Your task to perform on an android device: Do I have any events tomorrow? Image 0: 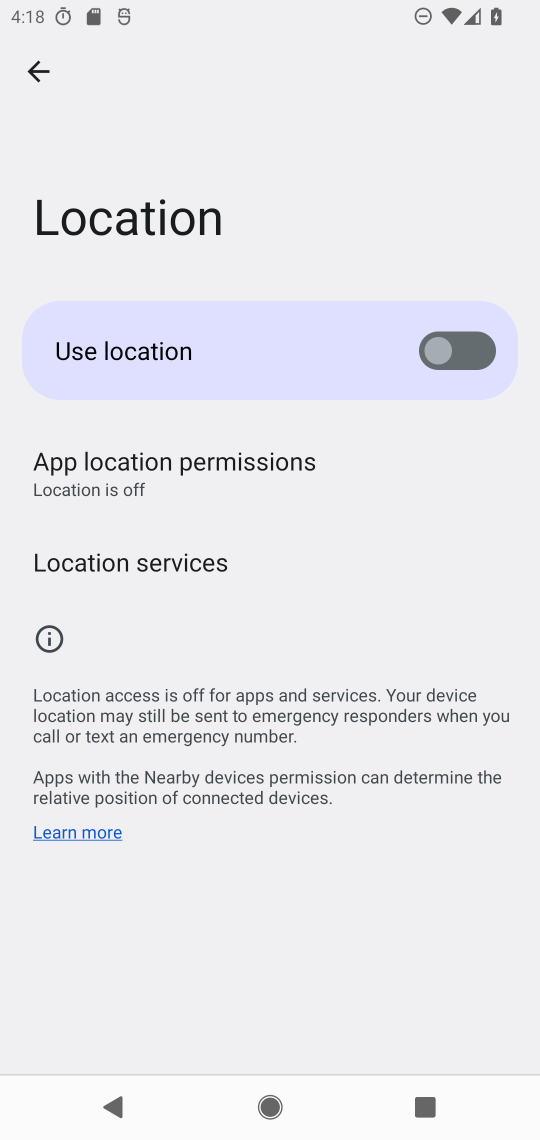
Step 0: press home button
Your task to perform on an android device: Do I have any events tomorrow? Image 1: 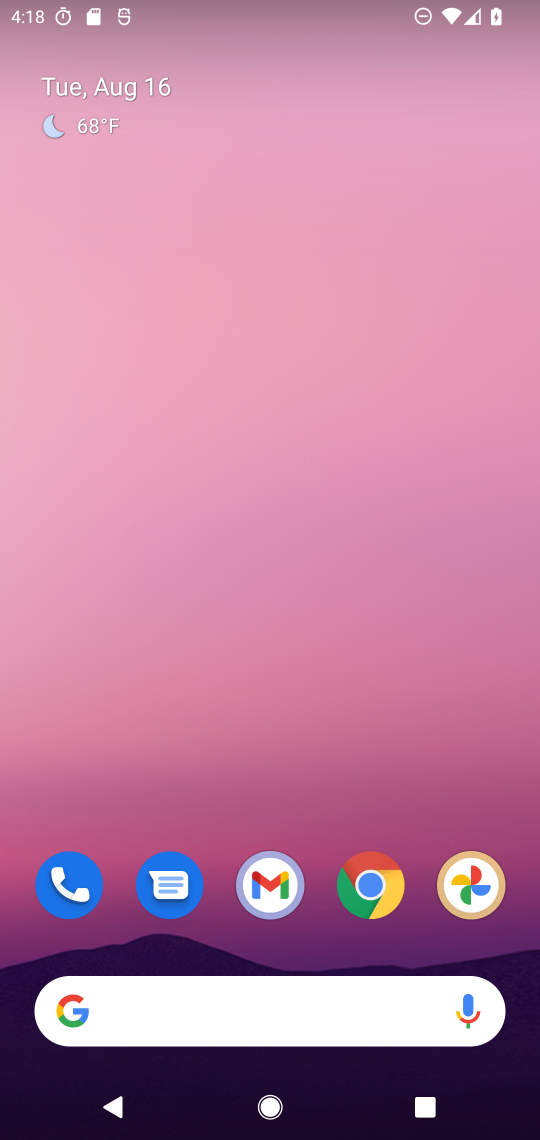
Step 1: drag from (247, 780) to (278, 445)
Your task to perform on an android device: Do I have any events tomorrow? Image 2: 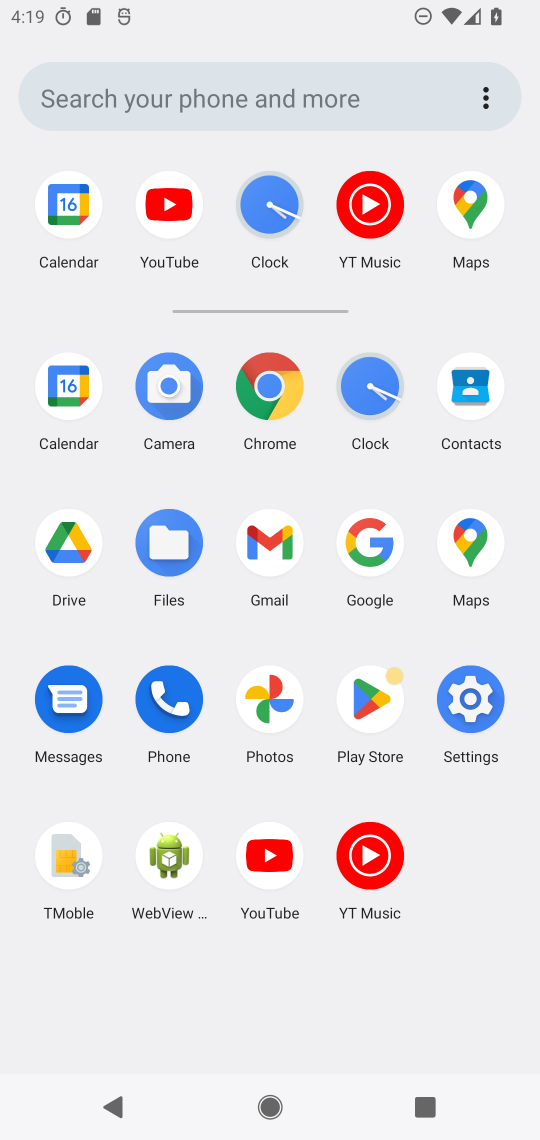
Step 2: click (56, 373)
Your task to perform on an android device: Do I have any events tomorrow? Image 3: 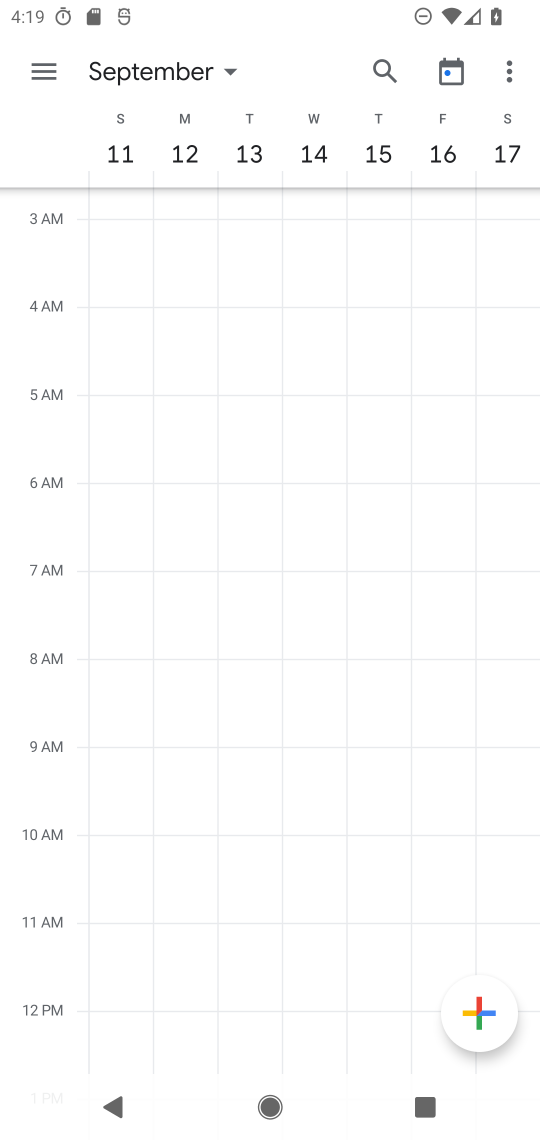
Step 3: drag from (126, 140) to (535, 154)
Your task to perform on an android device: Do I have any events tomorrow? Image 4: 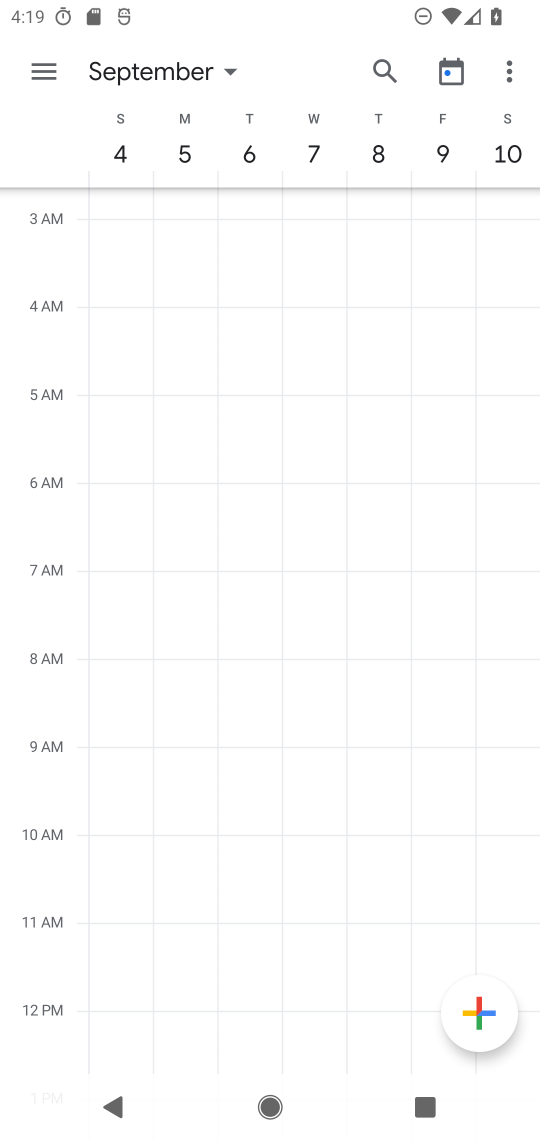
Step 4: drag from (217, 144) to (525, 148)
Your task to perform on an android device: Do I have any events tomorrow? Image 5: 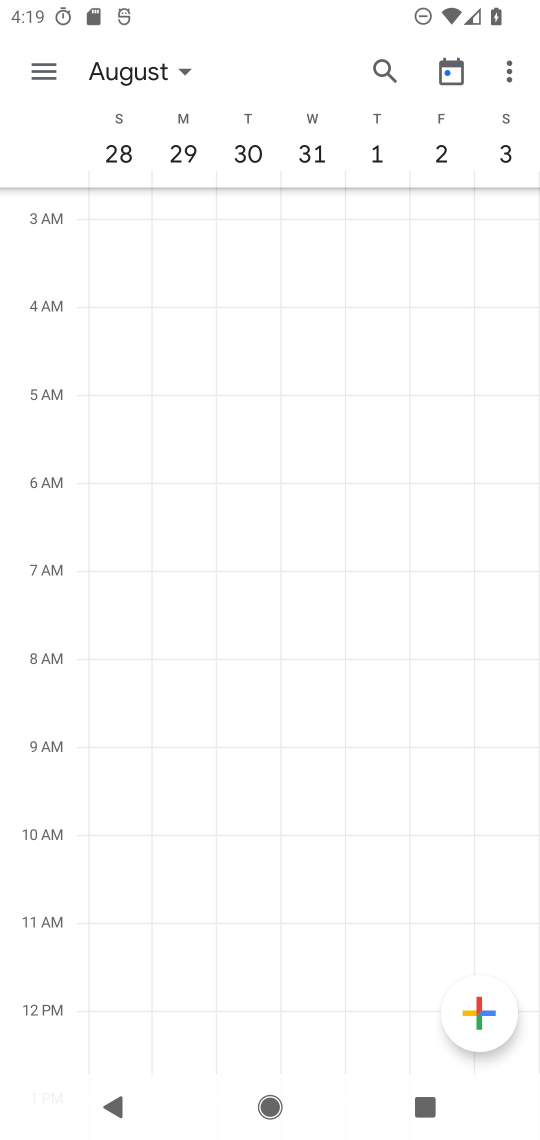
Step 5: drag from (125, 138) to (487, 153)
Your task to perform on an android device: Do I have any events tomorrow? Image 6: 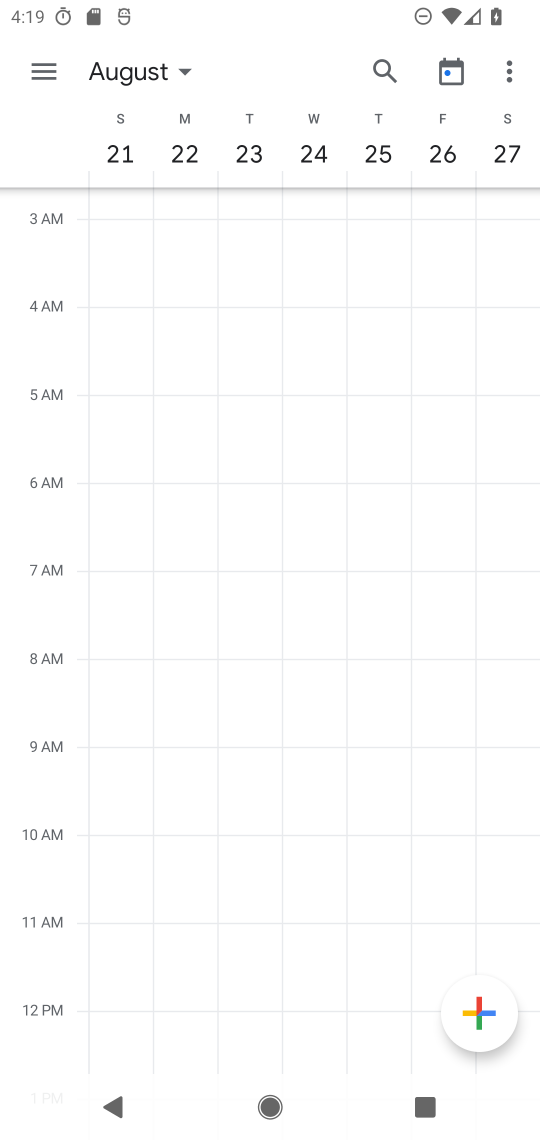
Step 6: drag from (113, 147) to (511, 106)
Your task to perform on an android device: Do I have any events tomorrow? Image 7: 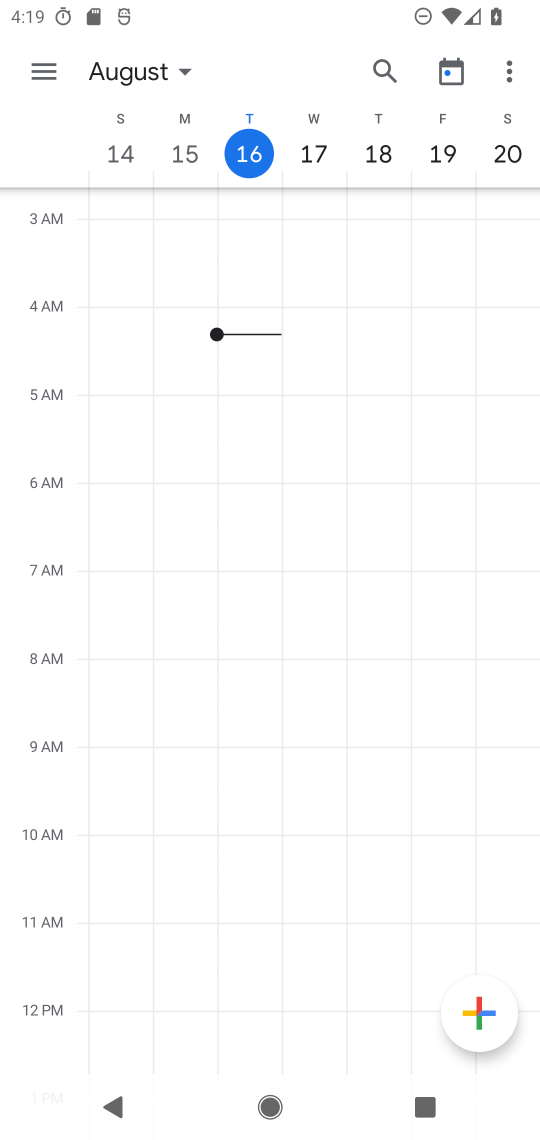
Step 7: click (324, 138)
Your task to perform on an android device: Do I have any events tomorrow? Image 8: 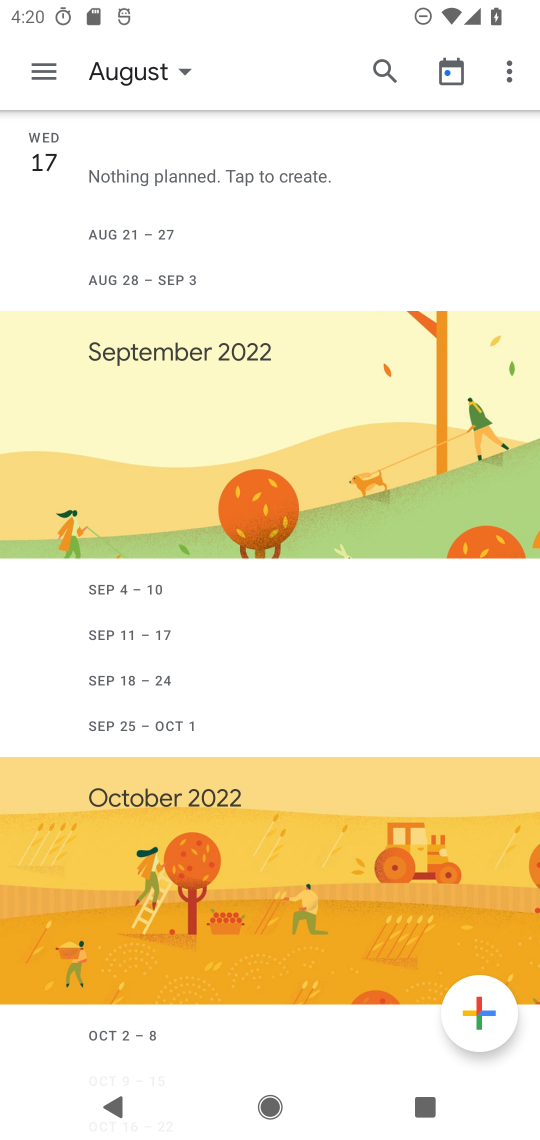
Step 8: task complete